Your task to perform on an android device: How do I get to the nearest Sprint Store? Image 0: 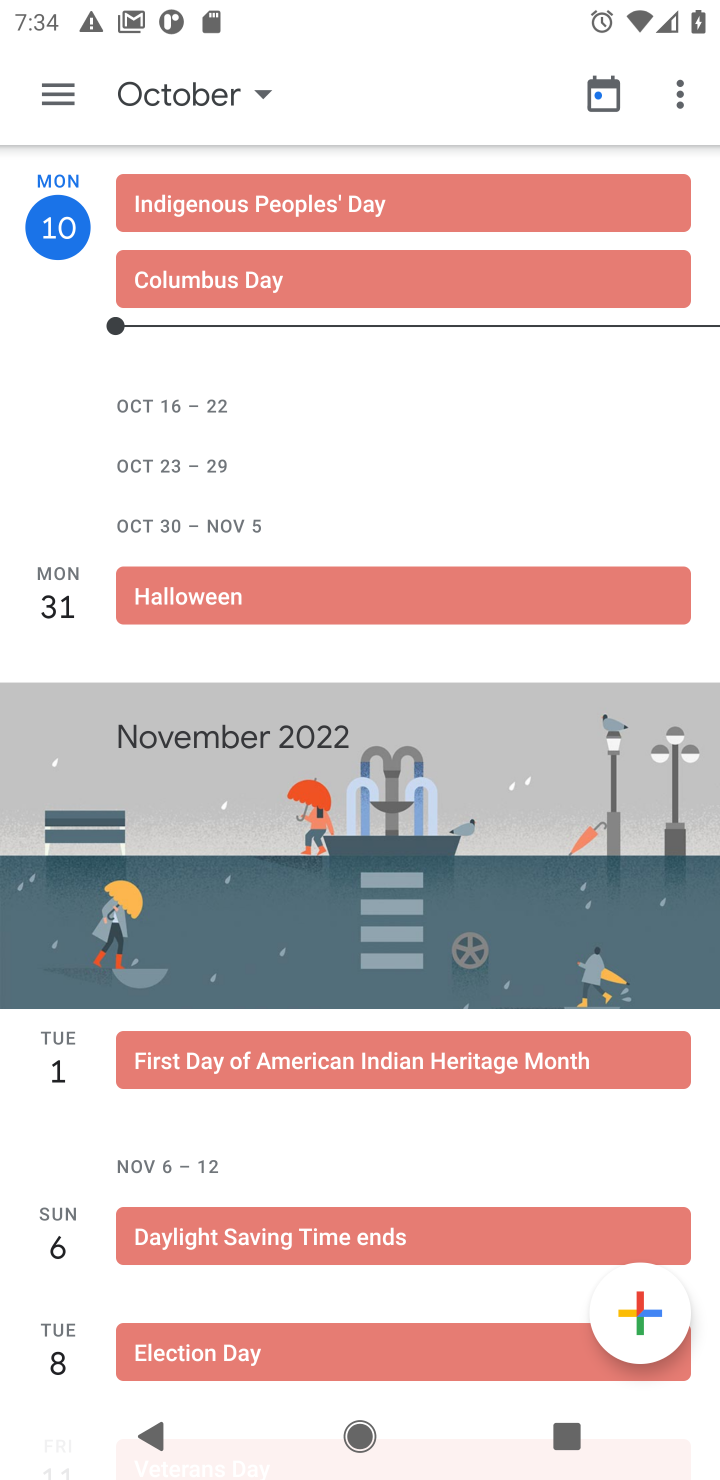
Step 0: press home button
Your task to perform on an android device: How do I get to the nearest Sprint Store? Image 1: 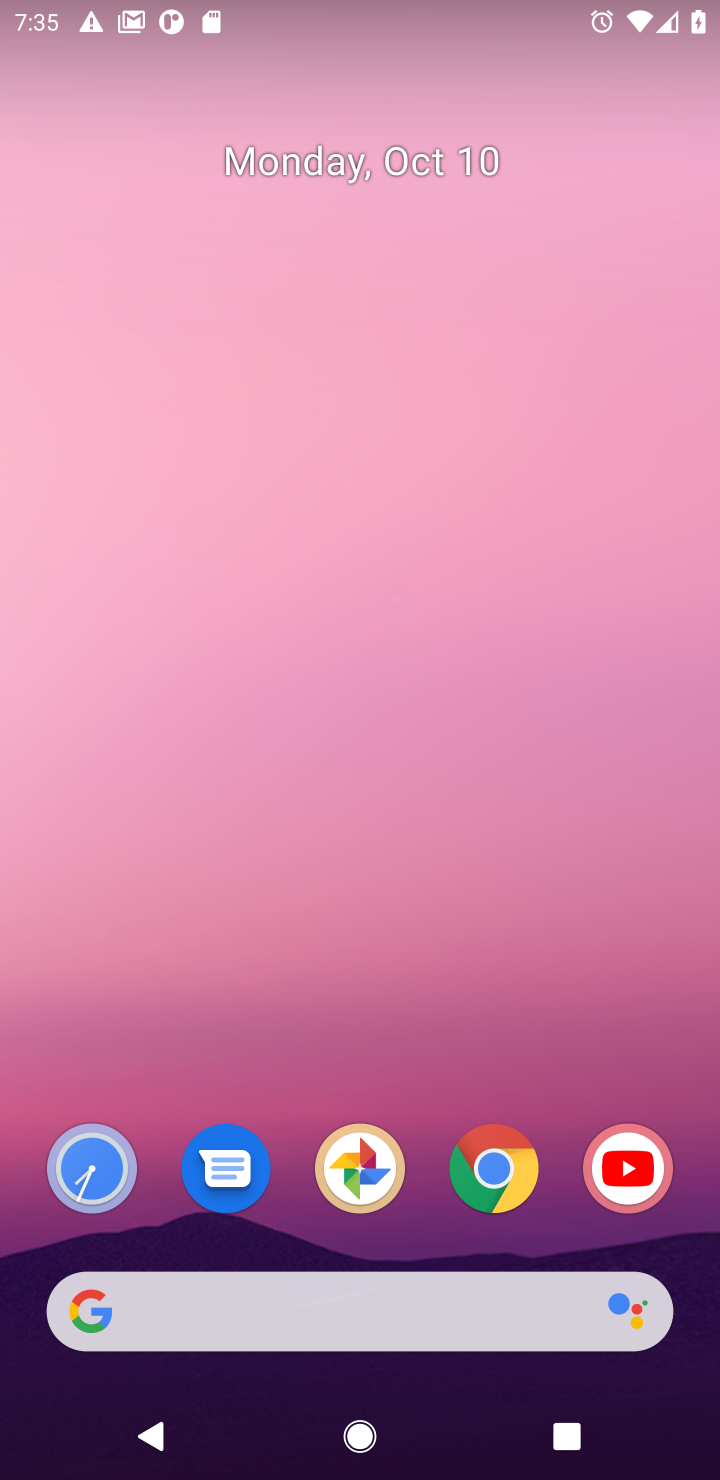
Step 1: click (495, 1165)
Your task to perform on an android device: How do I get to the nearest Sprint Store? Image 2: 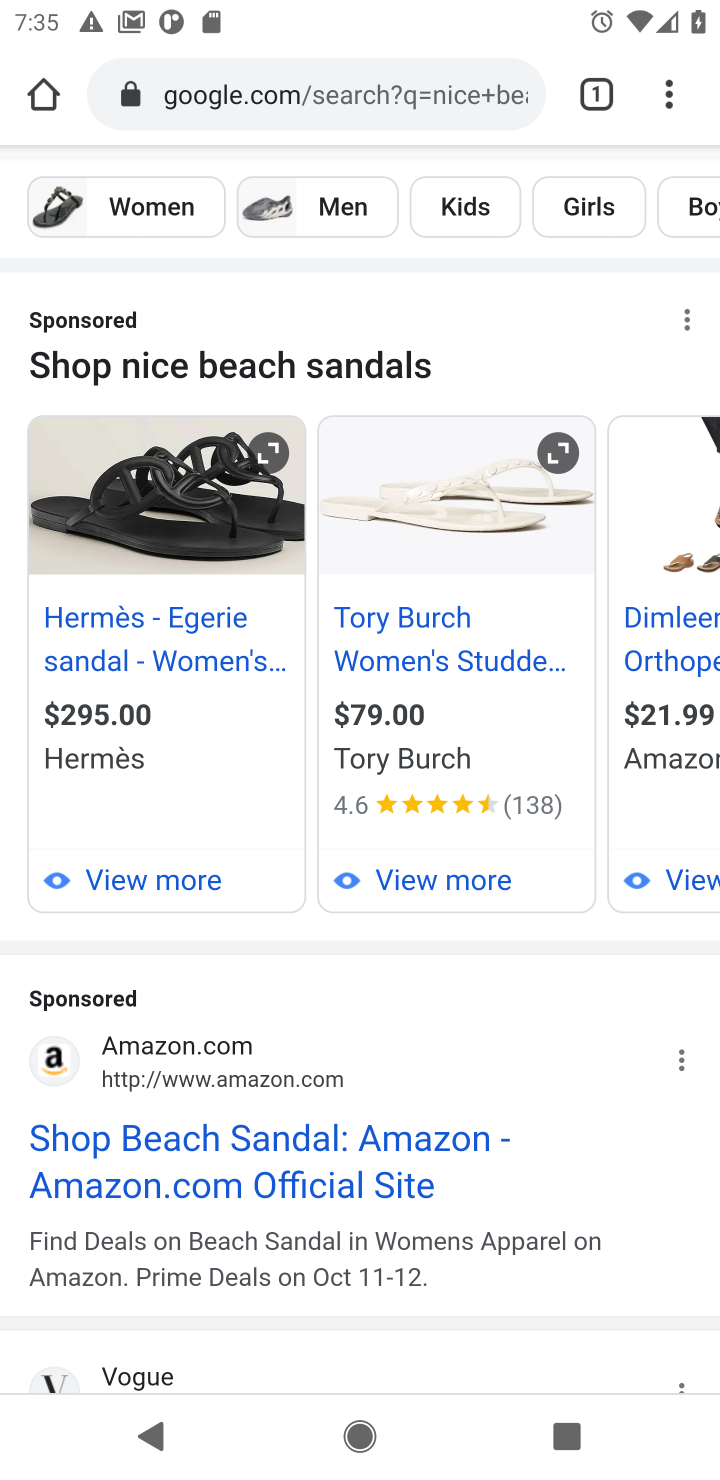
Step 2: click (293, 98)
Your task to perform on an android device: How do I get to the nearest Sprint Store? Image 3: 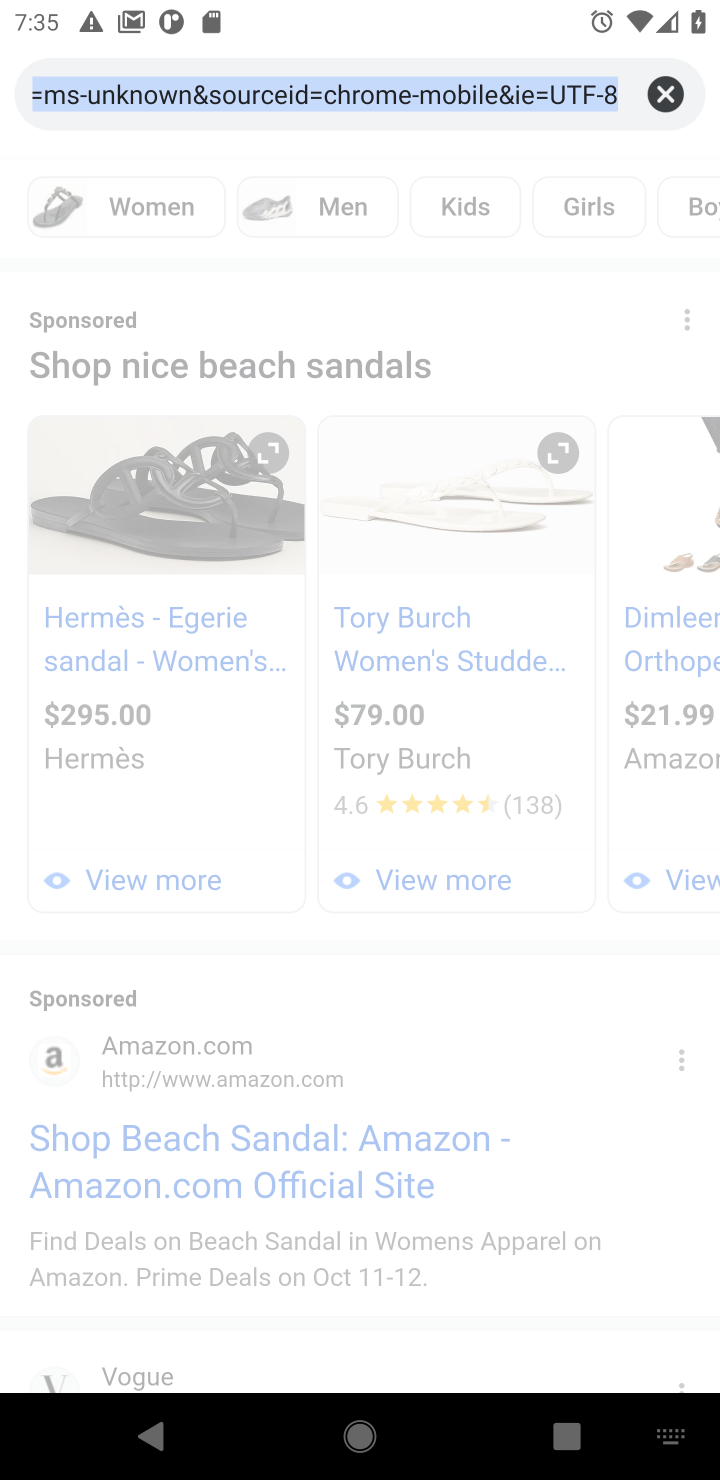
Step 3: click (664, 90)
Your task to perform on an android device: How do I get to the nearest Sprint Store? Image 4: 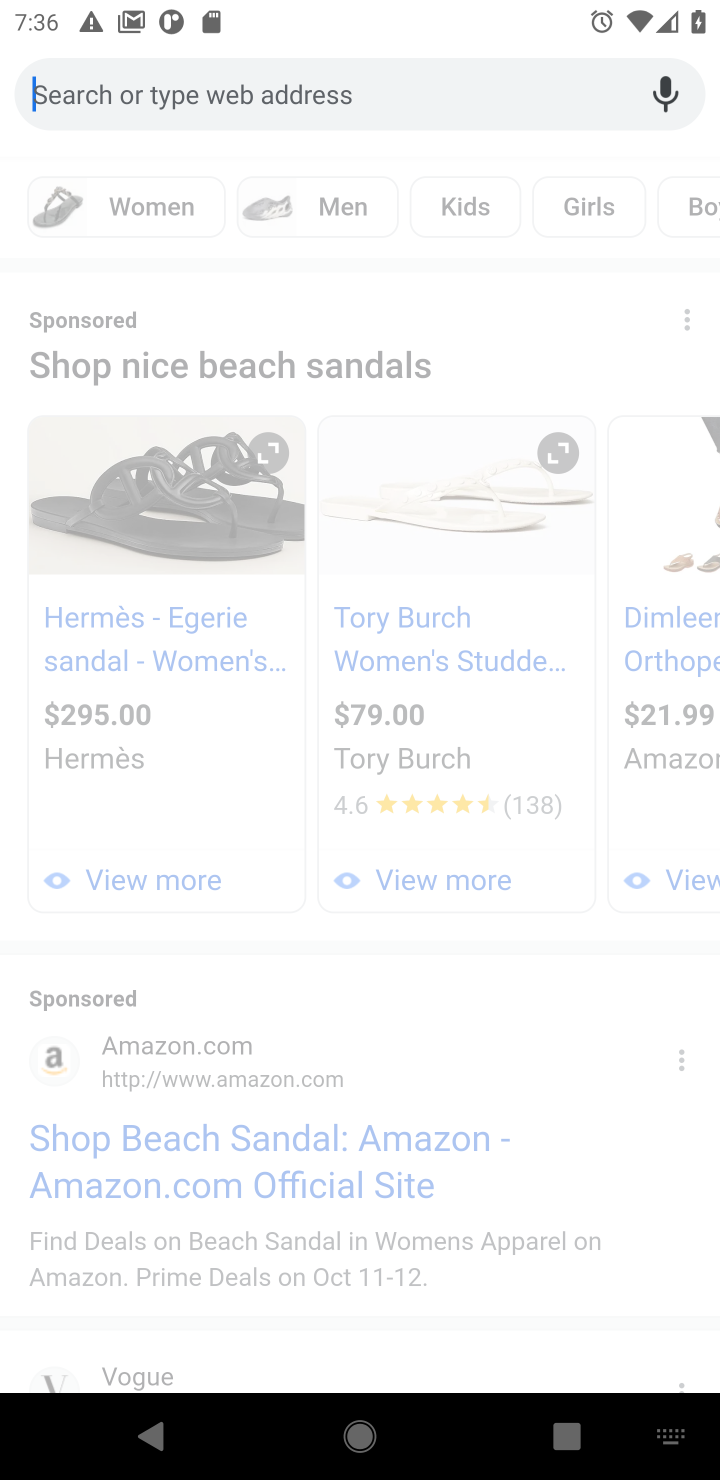
Step 4: type "sprint store"
Your task to perform on an android device: How do I get to the nearest Sprint Store? Image 5: 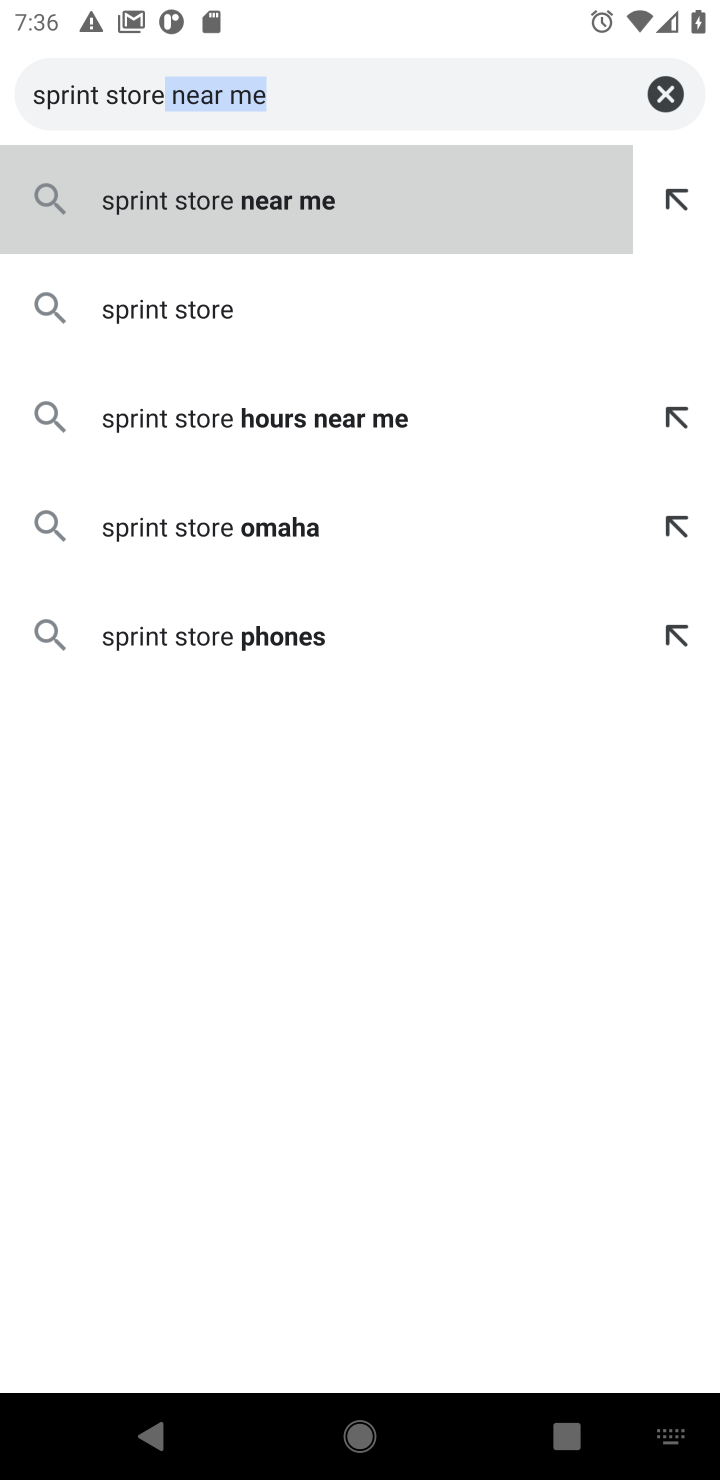
Step 5: click (193, 202)
Your task to perform on an android device: How do I get to the nearest Sprint Store? Image 6: 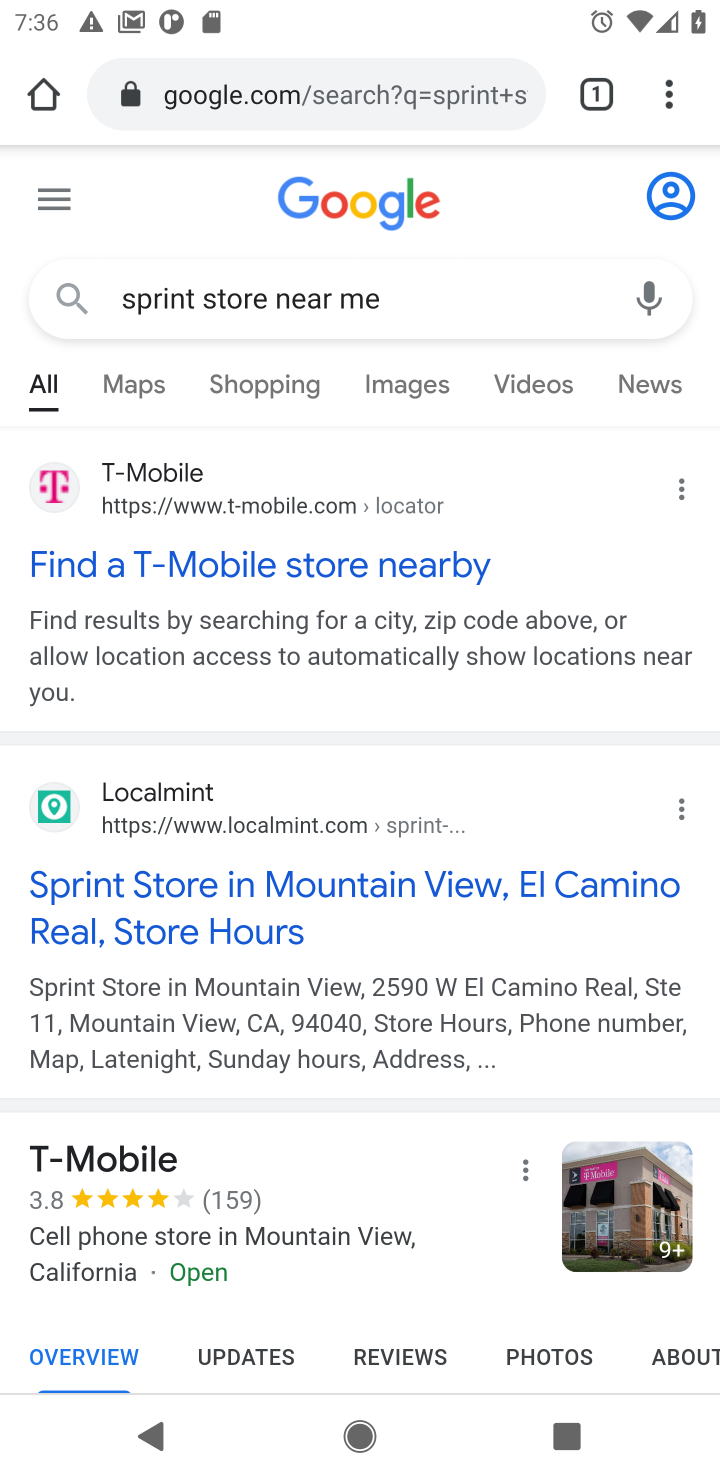
Step 6: drag from (353, 1078) to (307, 712)
Your task to perform on an android device: How do I get to the nearest Sprint Store? Image 7: 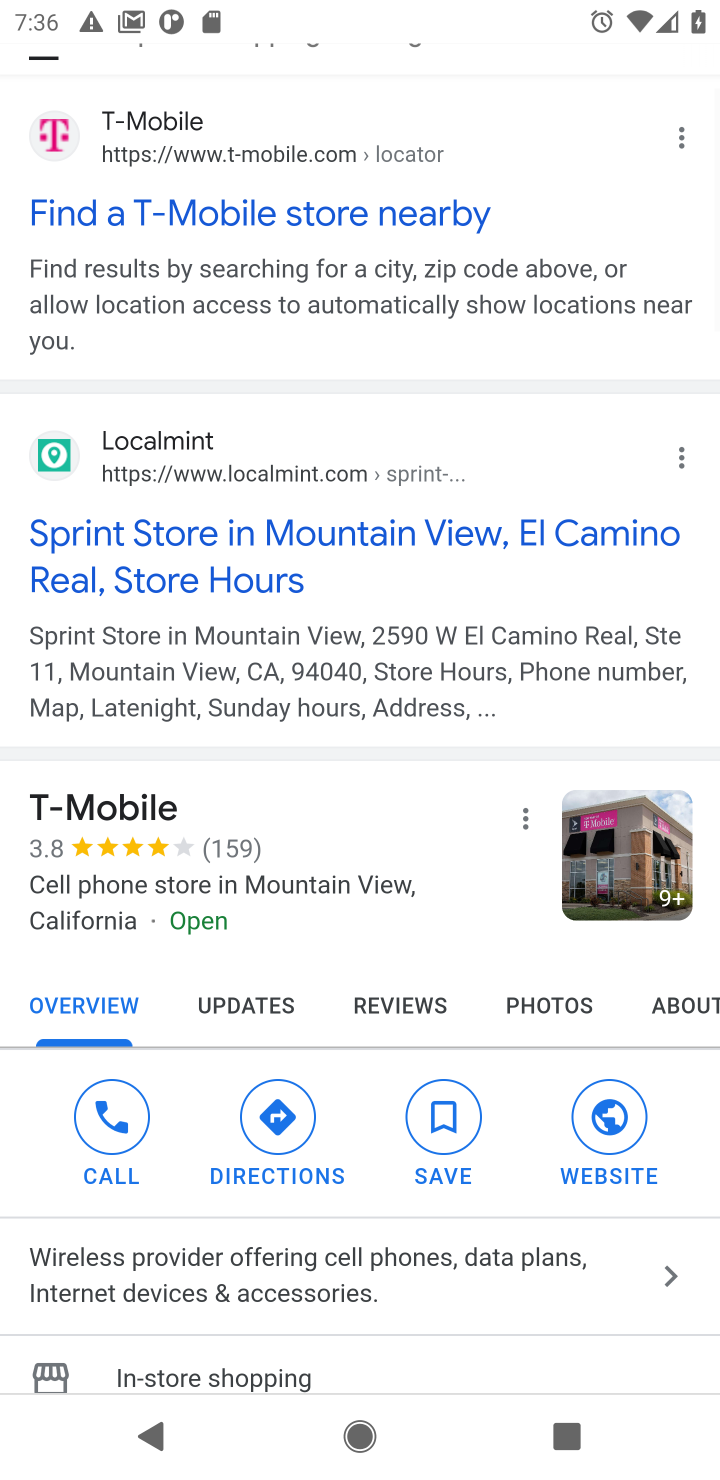
Step 7: drag from (315, 997) to (293, 484)
Your task to perform on an android device: How do I get to the nearest Sprint Store? Image 8: 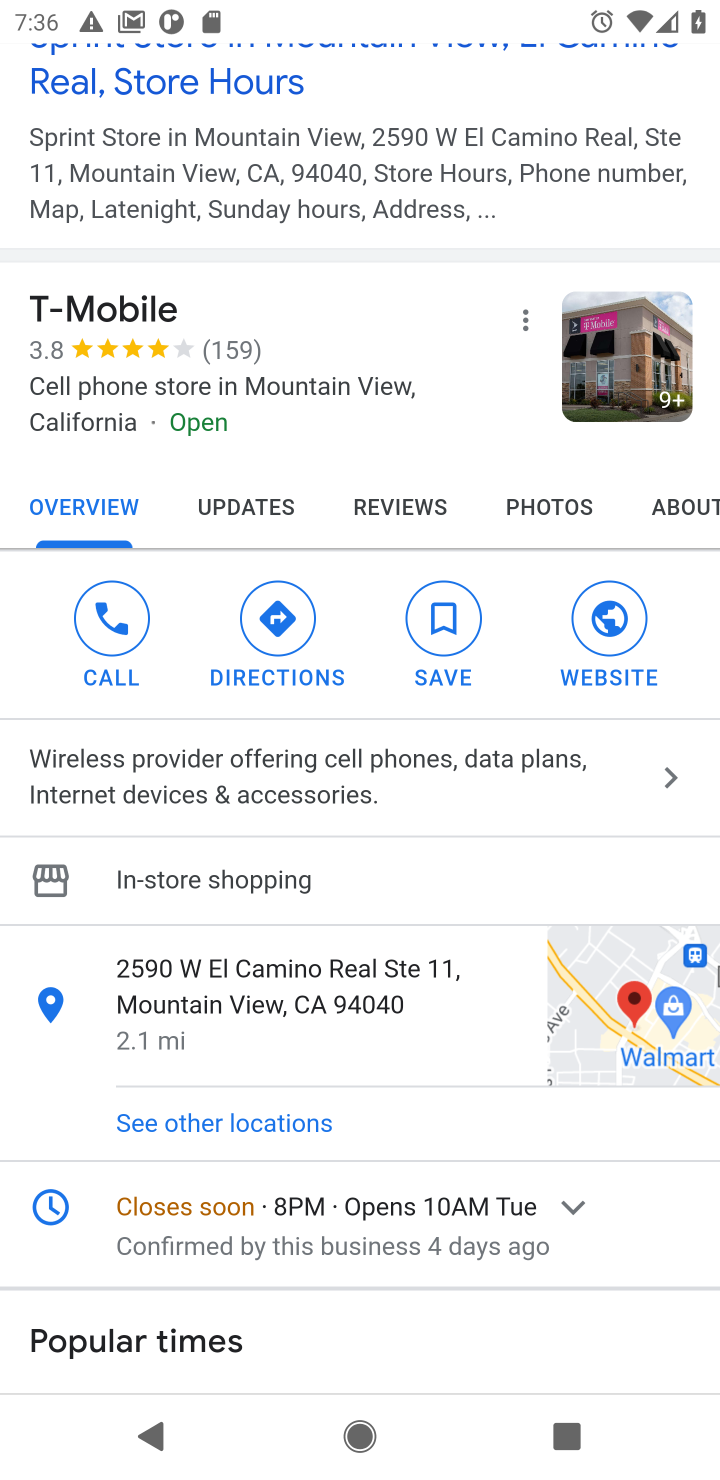
Step 8: drag from (328, 1036) to (236, 449)
Your task to perform on an android device: How do I get to the nearest Sprint Store? Image 9: 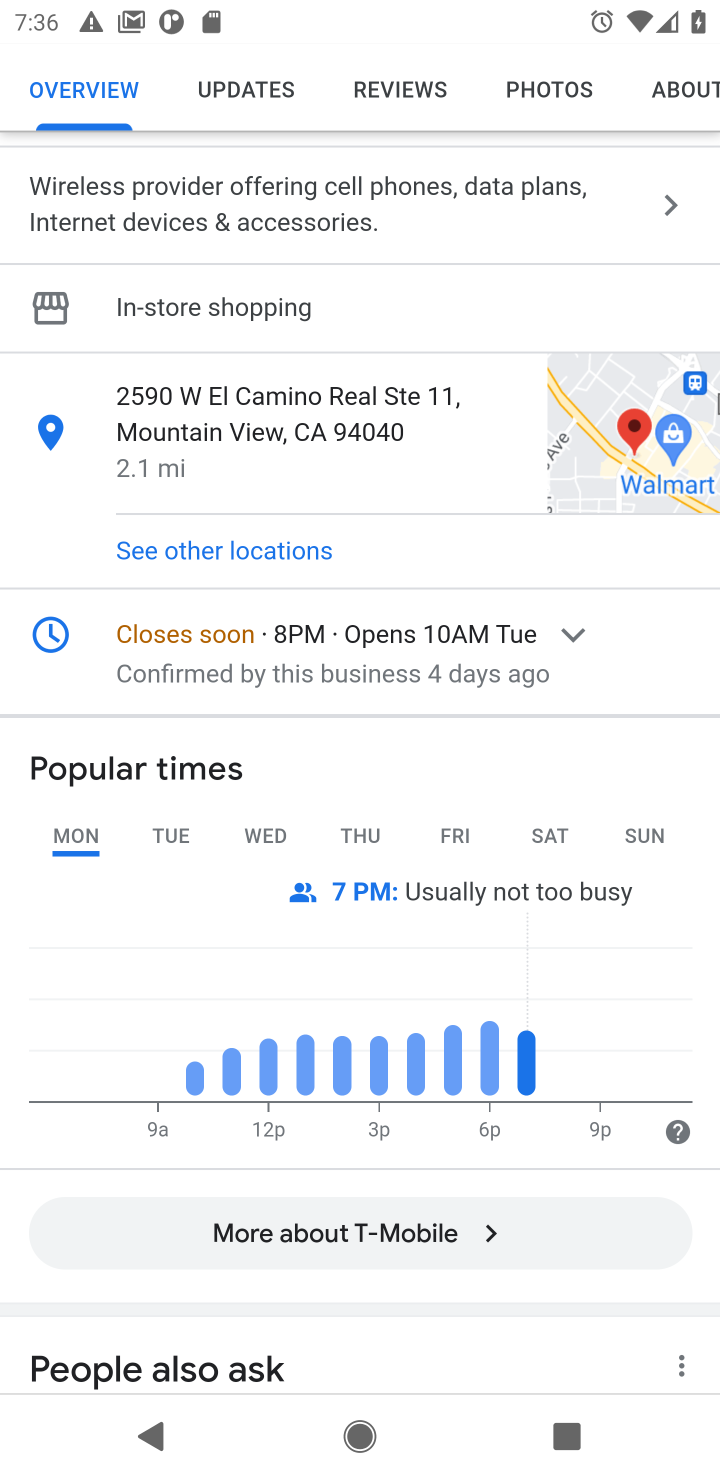
Step 9: drag from (245, 1000) to (182, 500)
Your task to perform on an android device: How do I get to the nearest Sprint Store? Image 10: 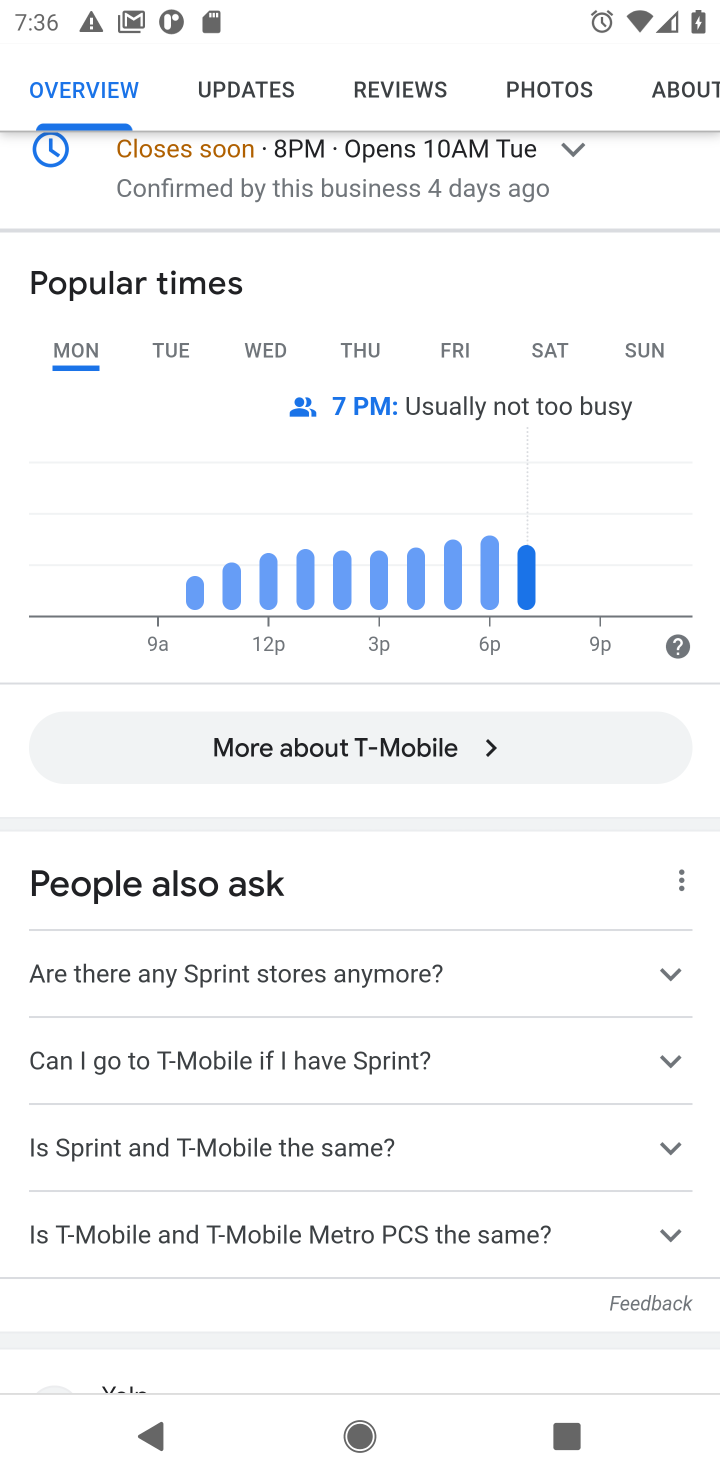
Step 10: drag from (197, 617) to (289, 1459)
Your task to perform on an android device: How do I get to the nearest Sprint Store? Image 11: 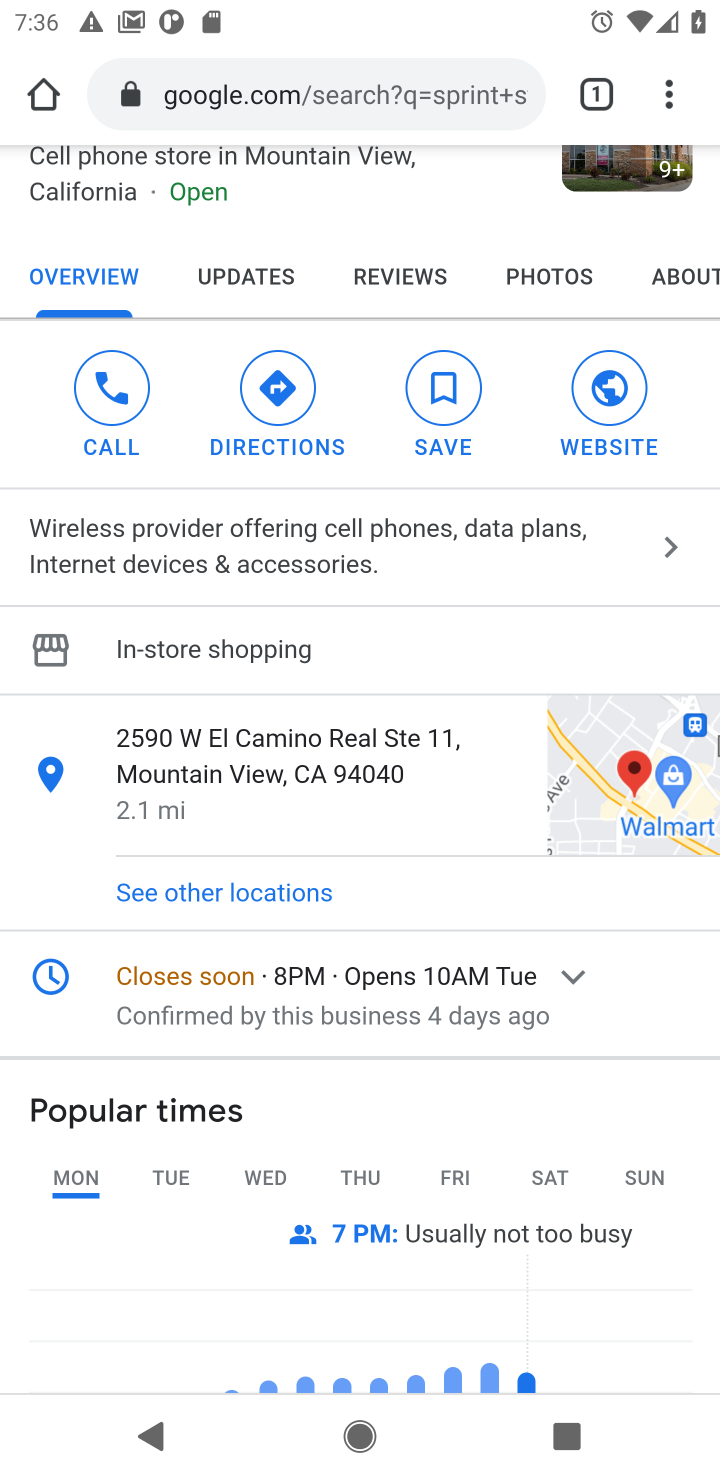
Step 11: drag from (302, 520) to (336, 1155)
Your task to perform on an android device: How do I get to the nearest Sprint Store? Image 12: 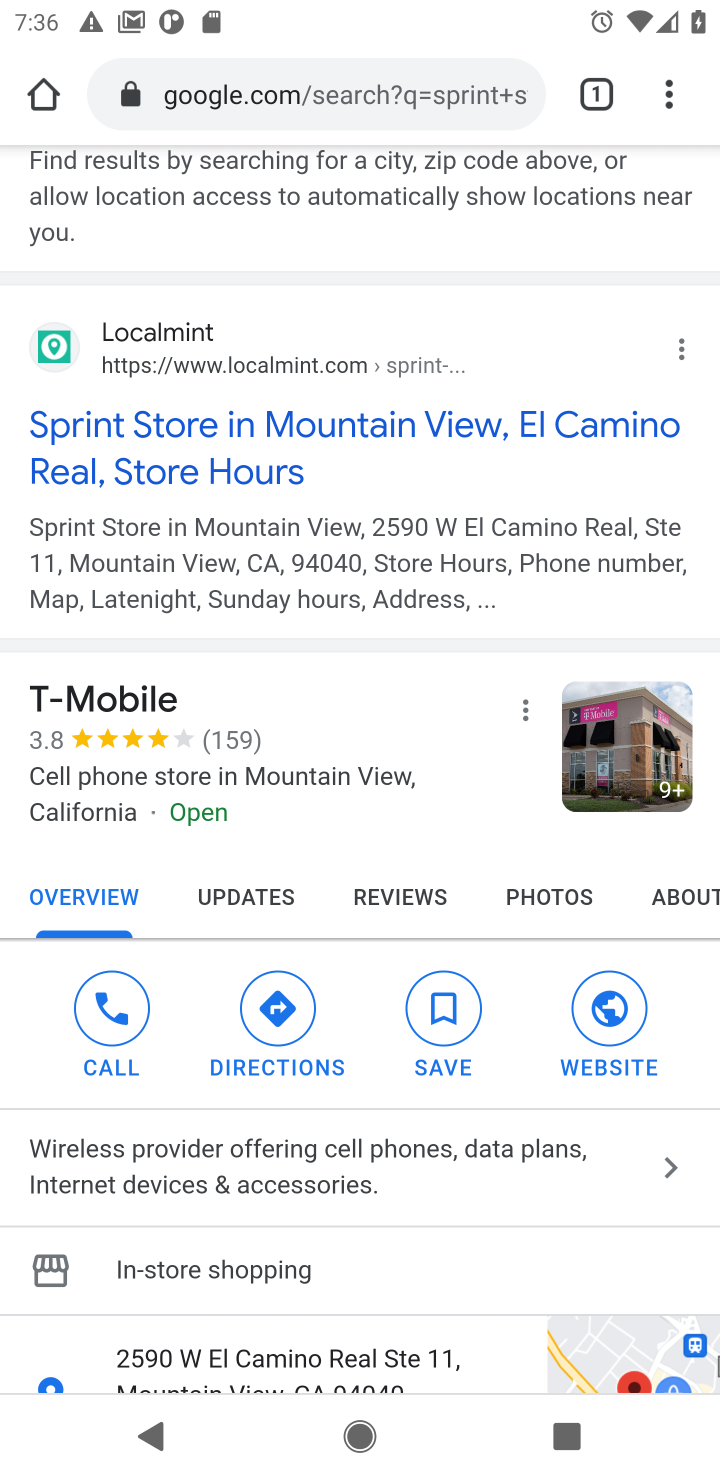
Step 12: click (178, 438)
Your task to perform on an android device: How do I get to the nearest Sprint Store? Image 13: 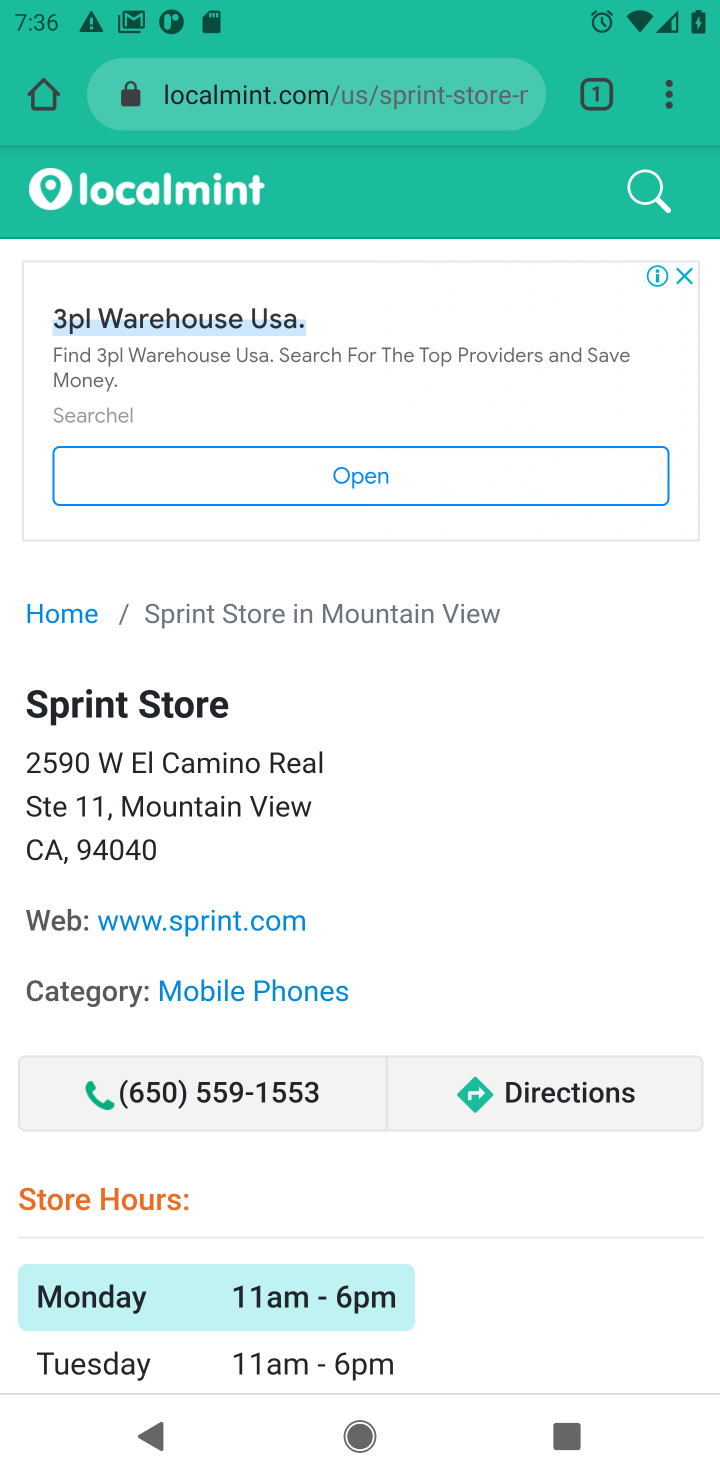
Step 13: task complete